Your task to perform on an android device: Search for a sofa on article.com Image 0: 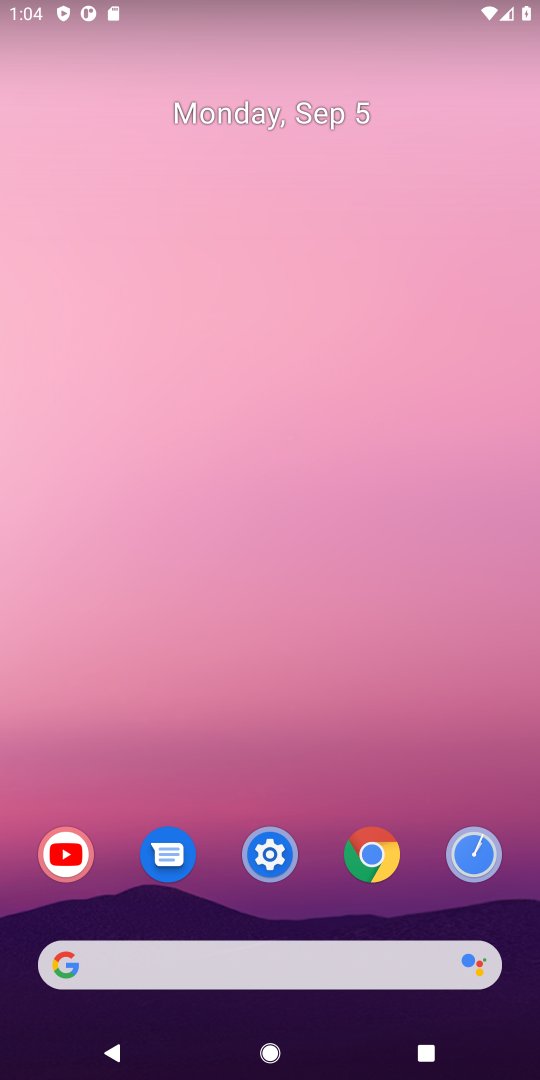
Step 0: click (330, 971)
Your task to perform on an android device: Search for a sofa on article.com Image 1: 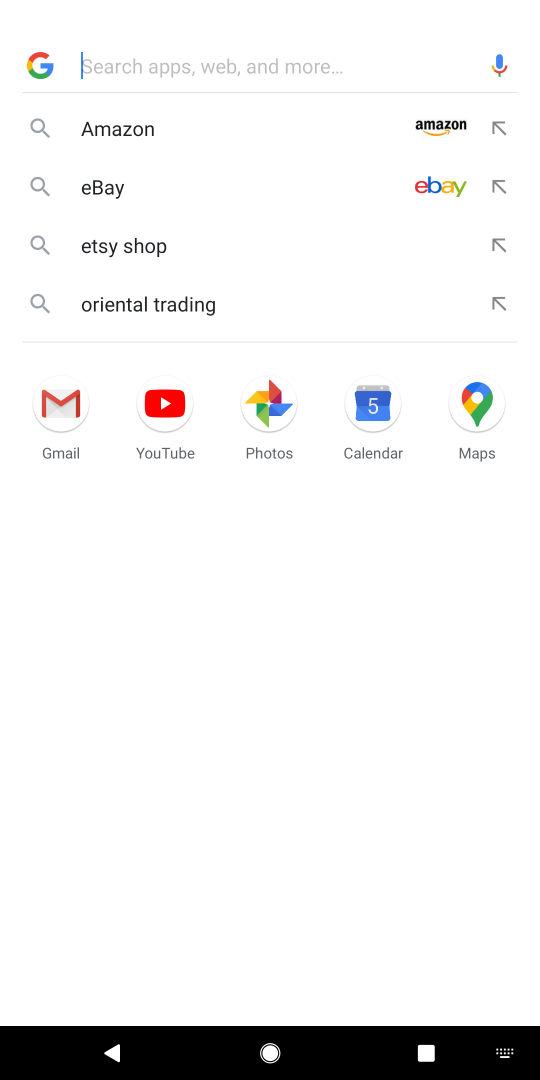
Step 1: type "article.com"
Your task to perform on an android device: Search for a sofa on article.com Image 2: 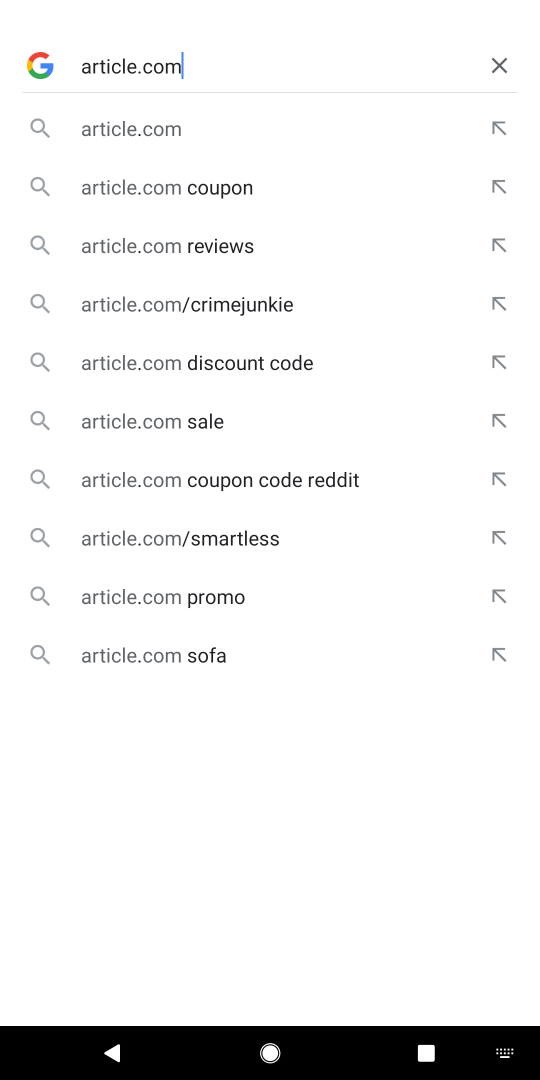
Step 2: click (142, 140)
Your task to perform on an android device: Search for a sofa on article.com Image 3: 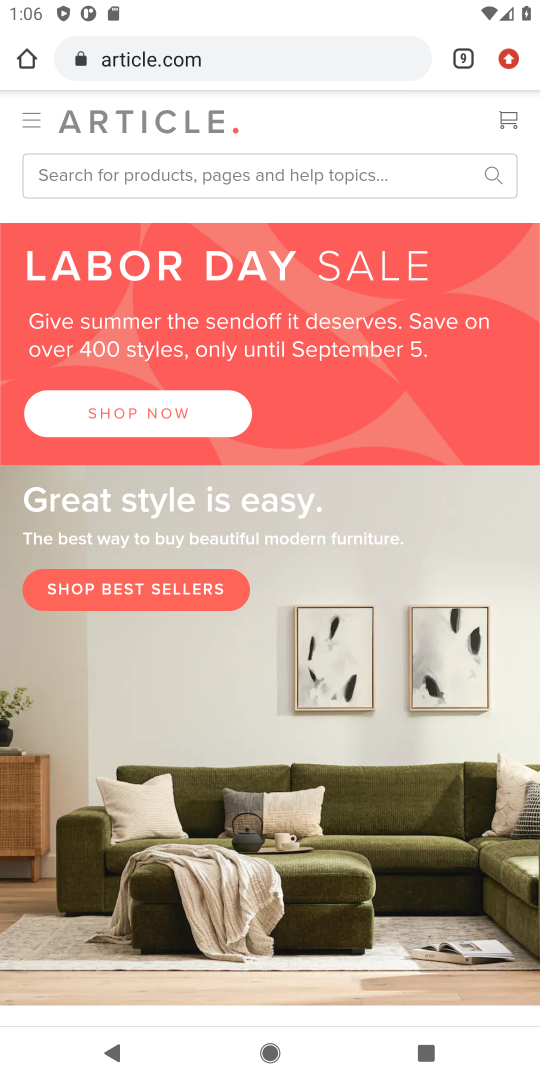
Step 3: click (155, 186)
Your task to perform on an android device: Search for a sofa on article.com Image 4: 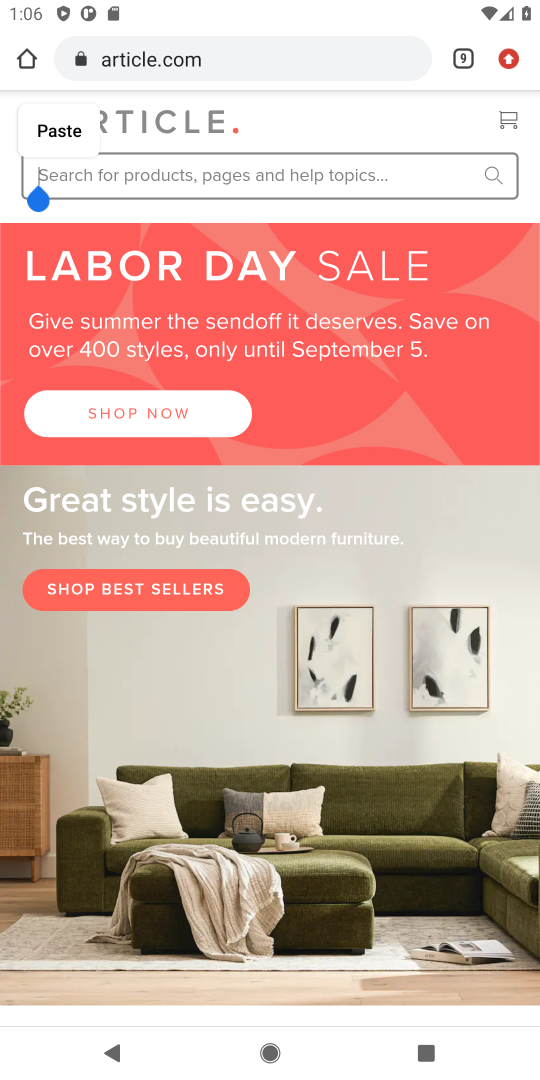
Step 4: type "sofa "
Your task to perform on an android device: Search for a sofa on article.com Image 5: 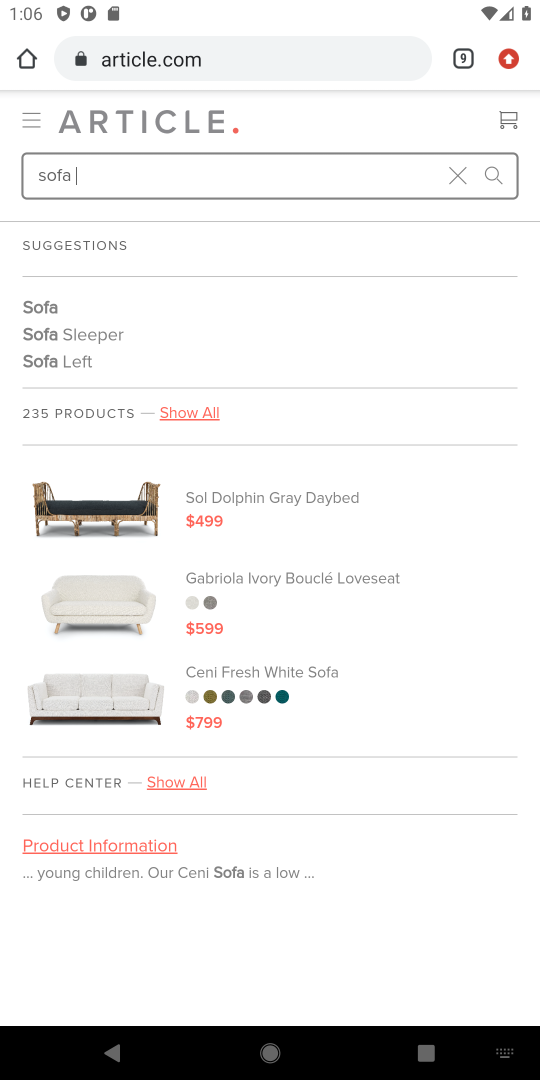
Step 5: click (504, 169)
Your task to perform on an android device: Search for a sofa on article.com Image 6: 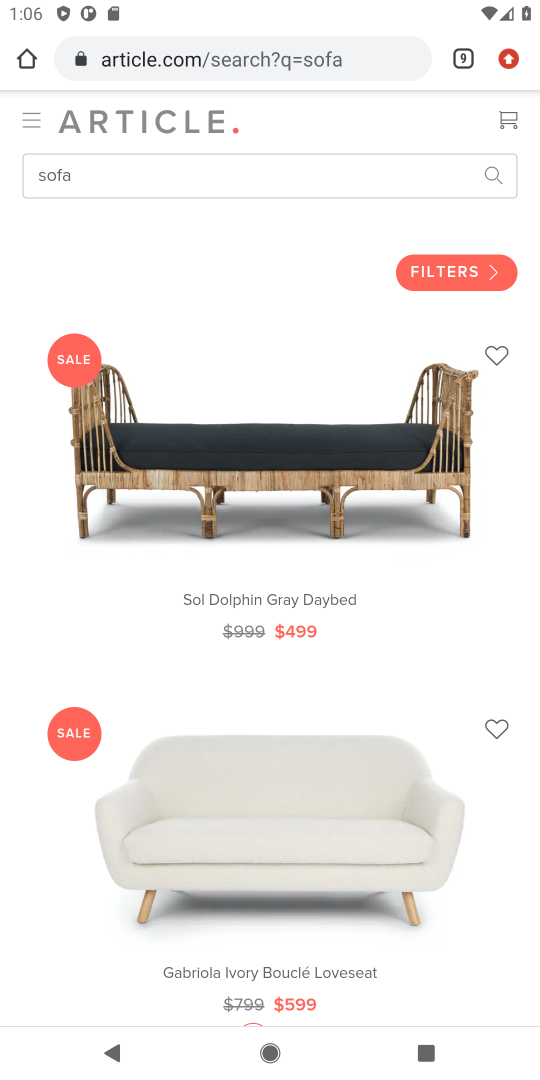
Step 6: task complete